Your task to perform on an android device: Find coffee shops on Maps Image 0: 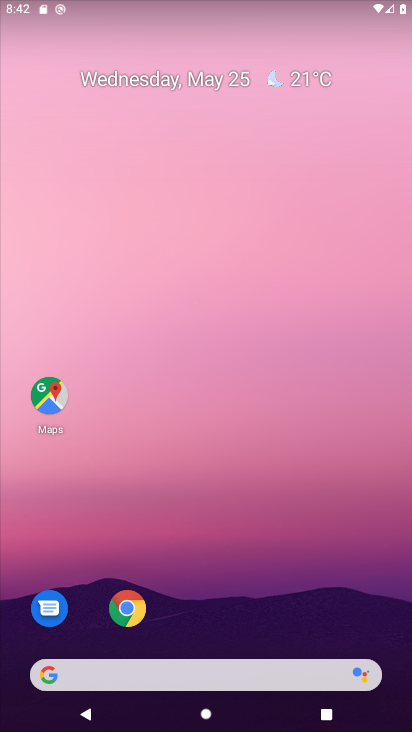
Step 0: drag from (259, 138) to (259, 86)
Your task to perform on an android device: Find coffee shops on Maps Image 1: 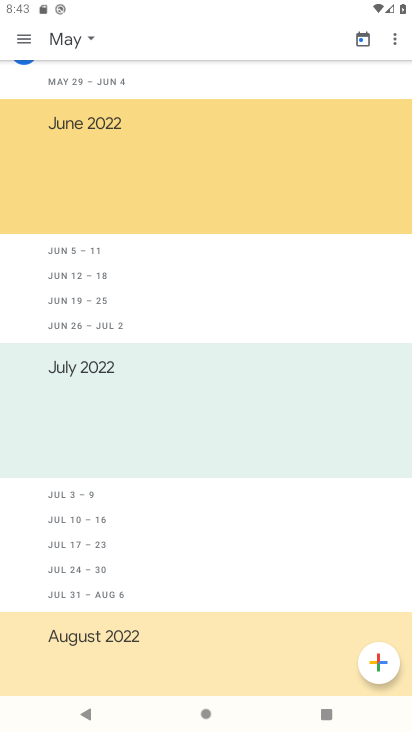
Step 1: press home button
Your task to perform on an android device: Find coffee shops on Maps Image 2: 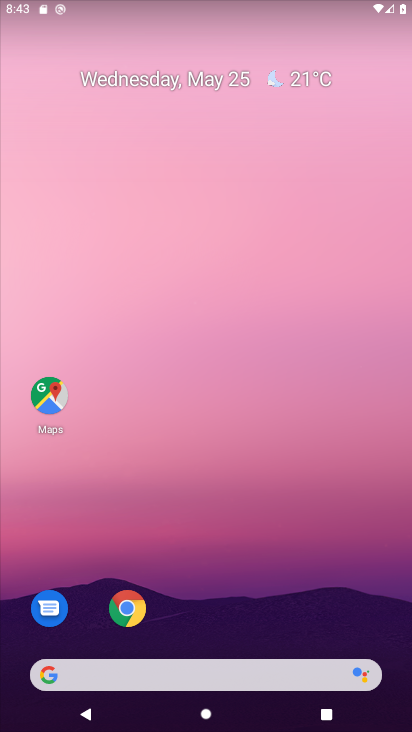
Step 2: drag from (232, 719) to (237, 90)
Your task to perform on an android device: Find coffee shops on Maps Image 3: 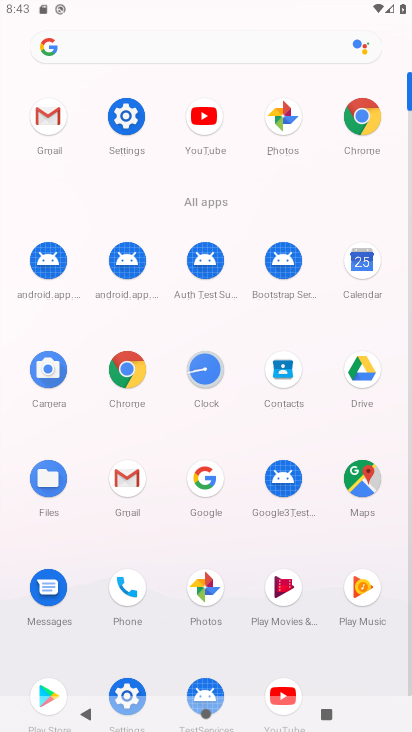
Step 3: click (355, 481)
Your task to perform on an android device: Find coffee shops on Maps Image 4: 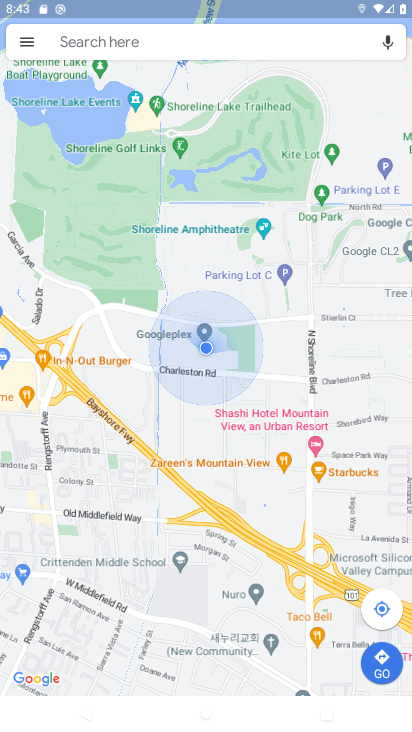
Step 4: click (182, 44)
Your task to perform on an android device: Find coffee shops on Maps Image 5: 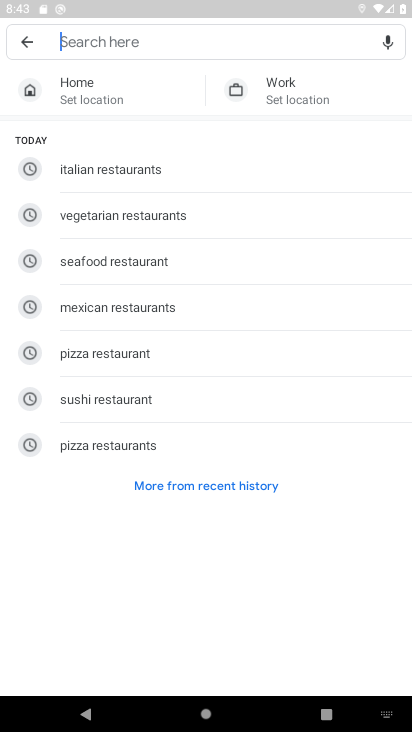
Step 5: type "coffee shops"
Your task to perform on an android device: Find coffee shops on Maps Image 6: 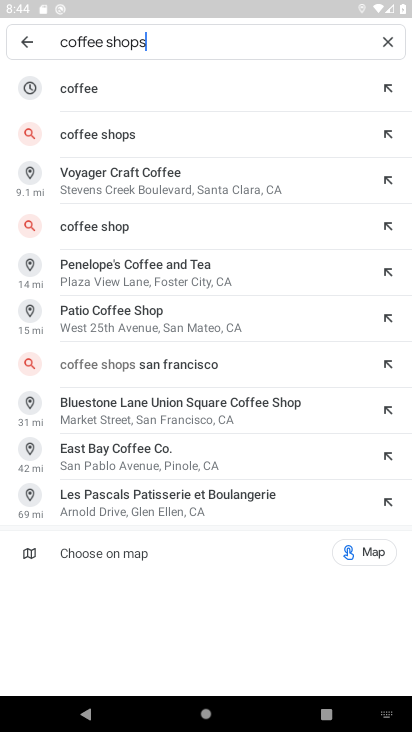
Step 6: click (101, 132)
Your task to perform on an android device: Find coffee shops on Maps Image 7: 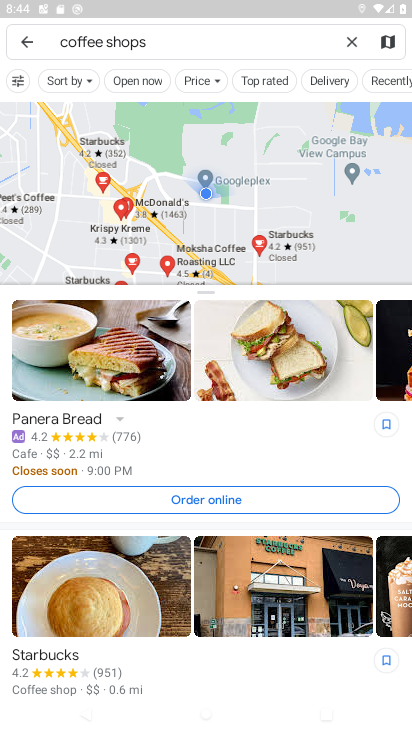
Step 7: task complete